Your task to perform on an android device: change the upload size in google photos Image 0: 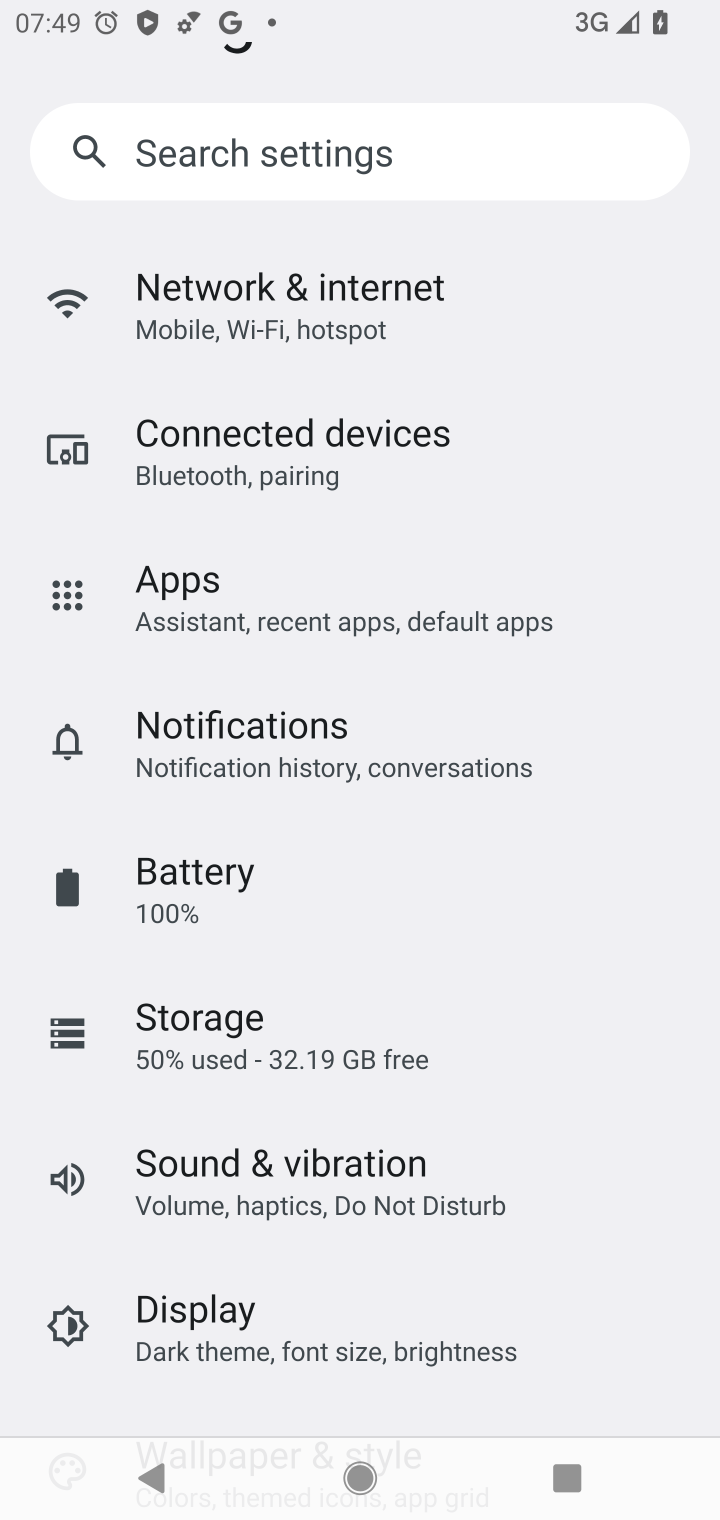
Step 0: press home button
Your task to perform on an android device: change the upload size in google photos Image 1: 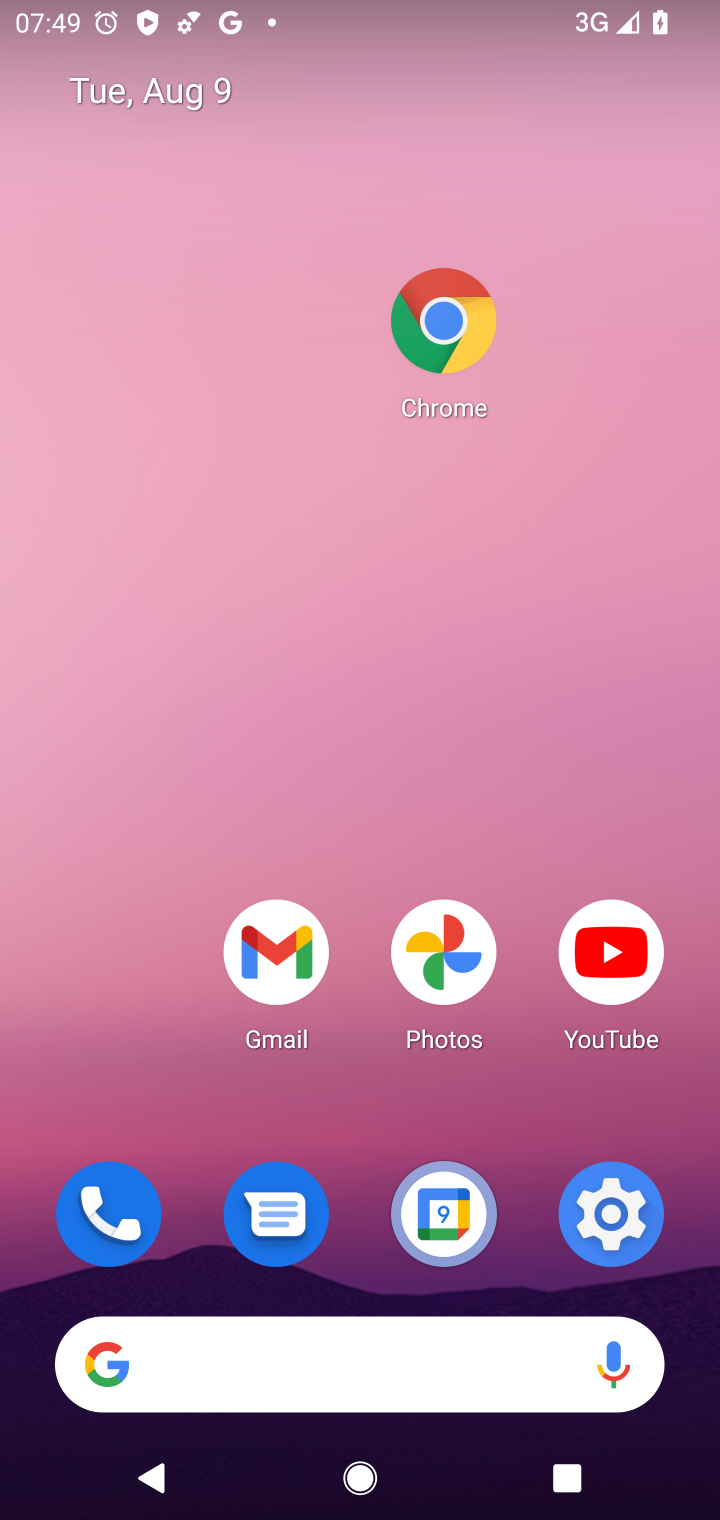
Step 1: drag from (491, 1253) to (592, 488)
Your task to perform on an android device: change the upload size in google photos Image 2: 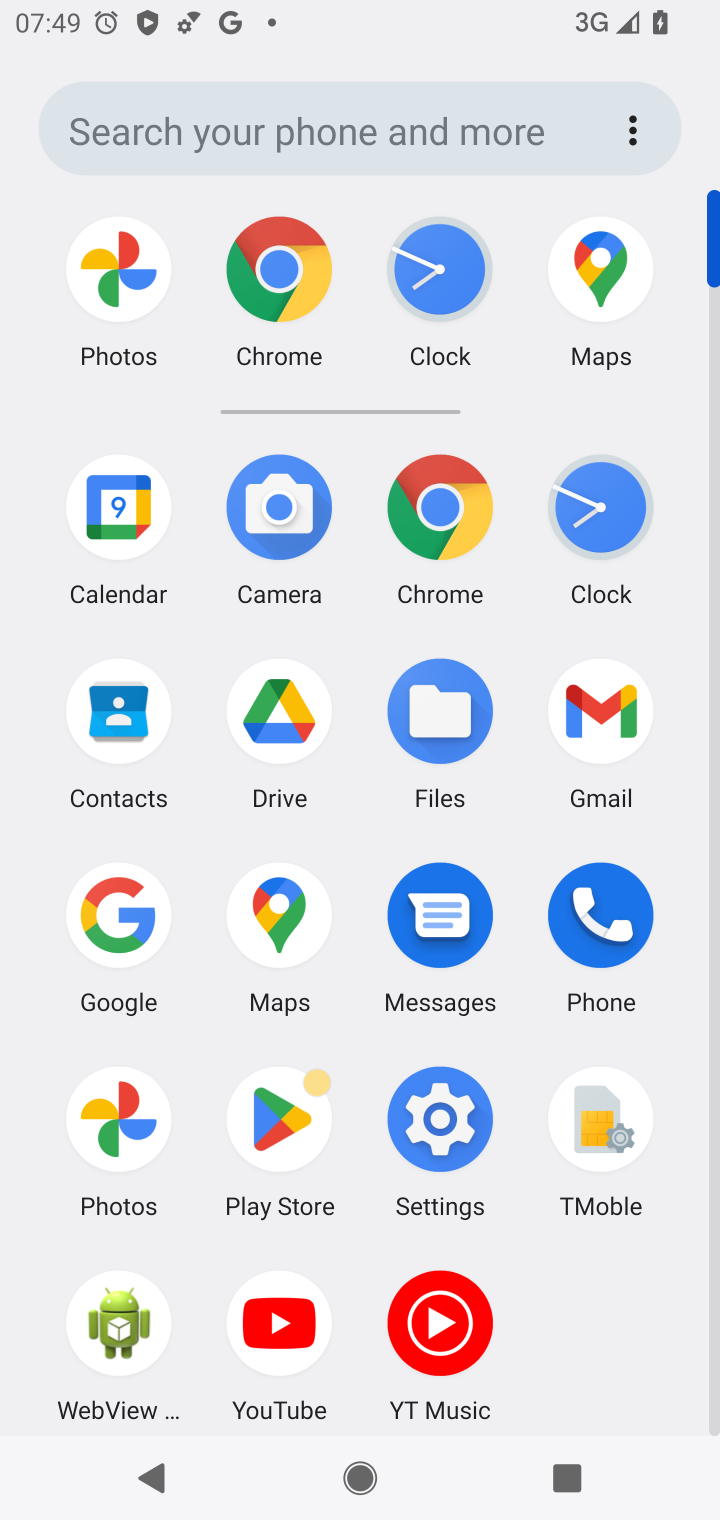
Step 2: click (128, 291)
Your task to perform on an android device: change the upload size in google photos Image 3: 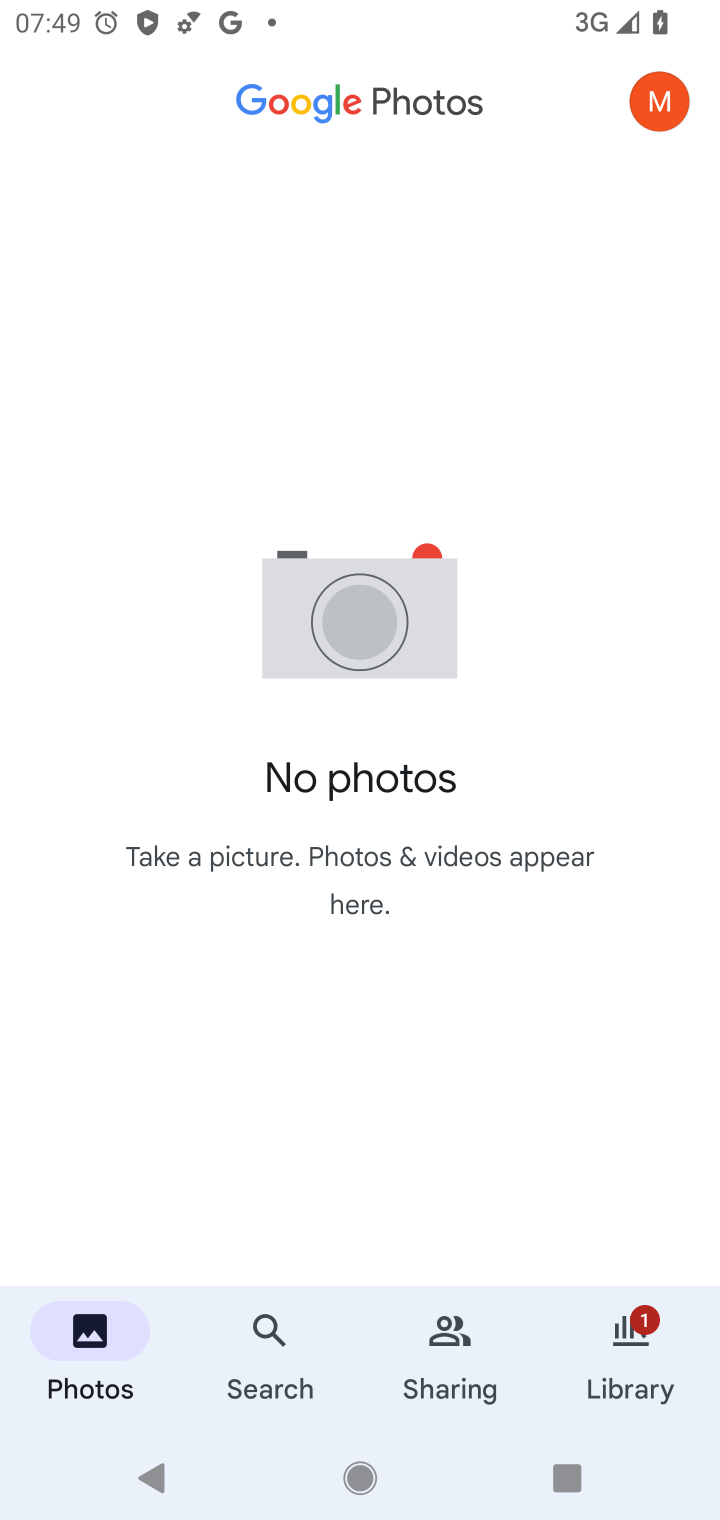
Step 3: click (655, 112)
Your task to perform on an android device: change the upload size in google photos Image 4: 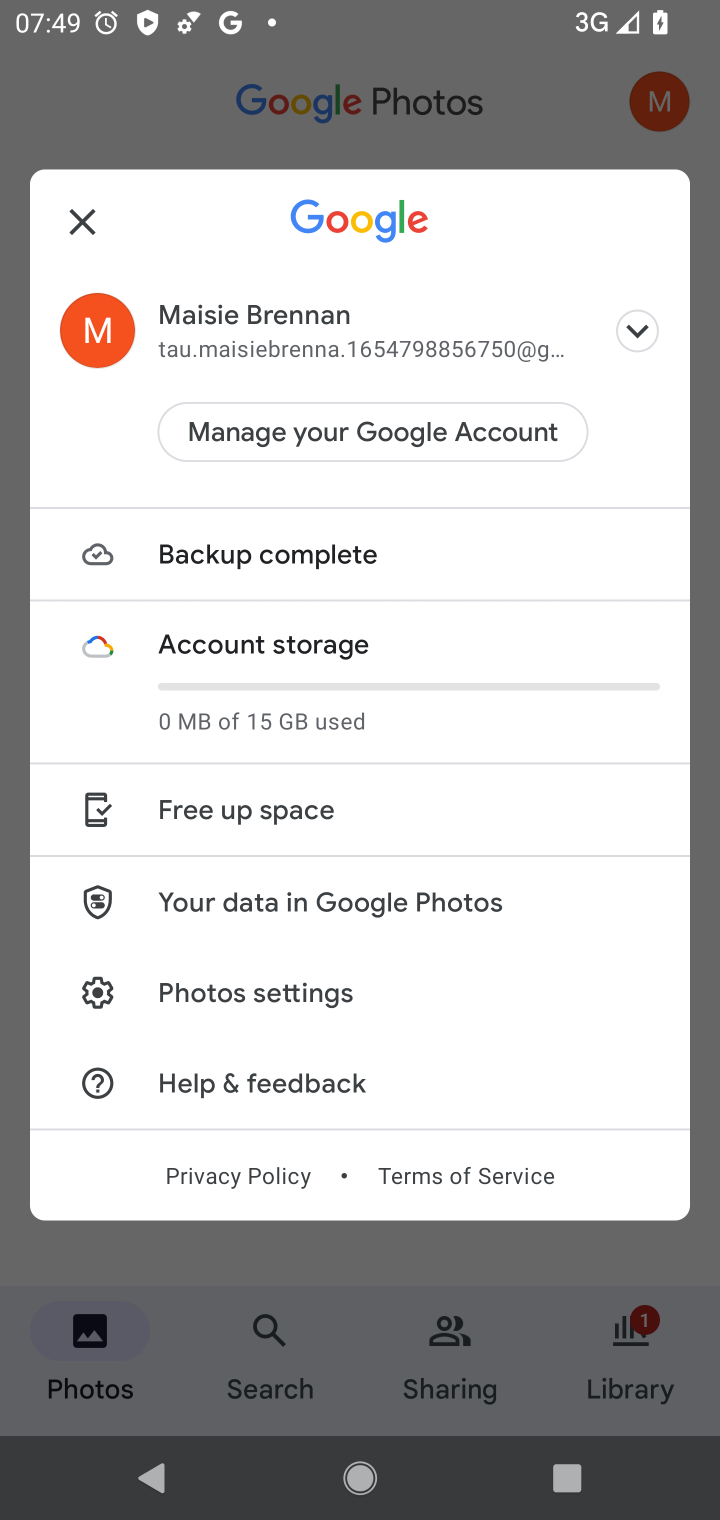
Step 4: click (240, 998)
Your task to perform on an android device: change the upload size in google photos Image 5: 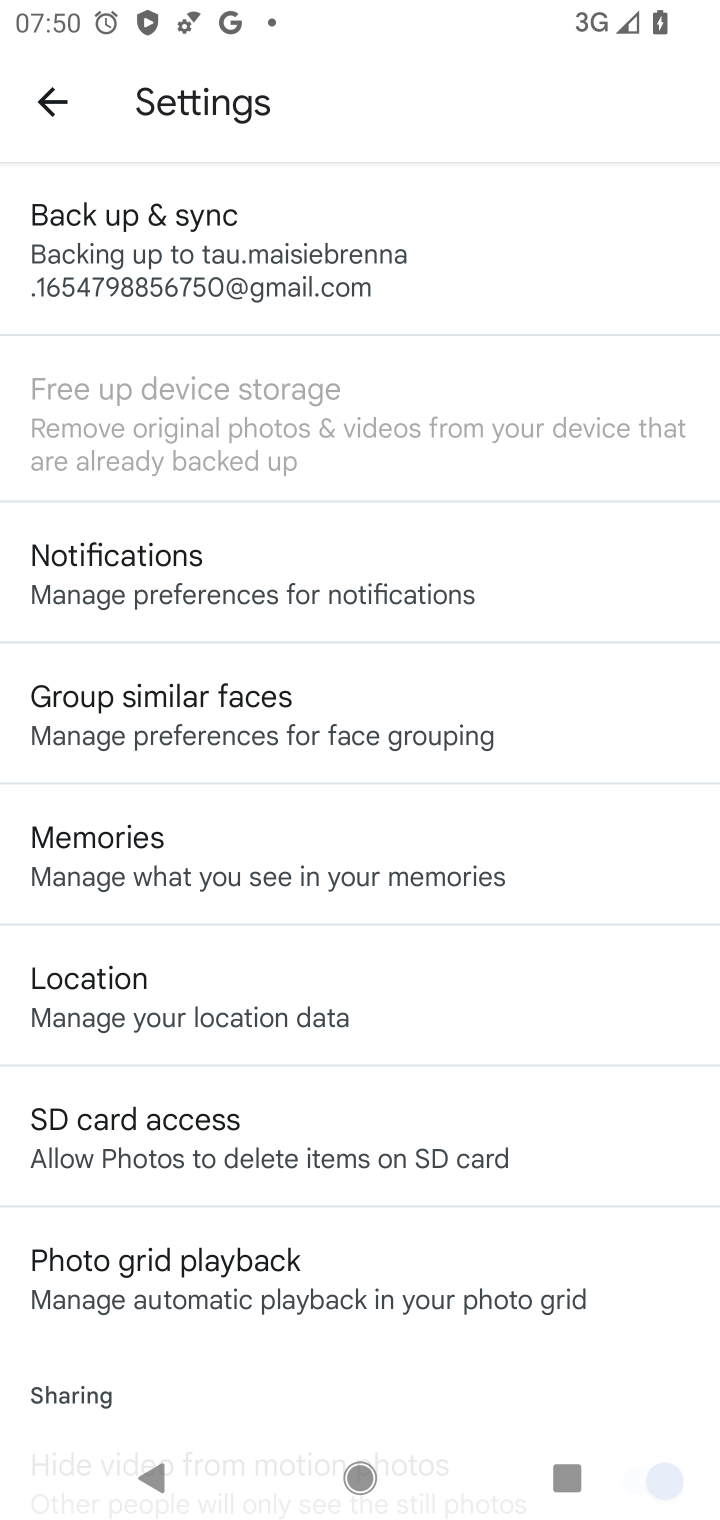
Step 5: click (176, 282)
Your task to perform on an android device: change the upload size in google photos Image 6: 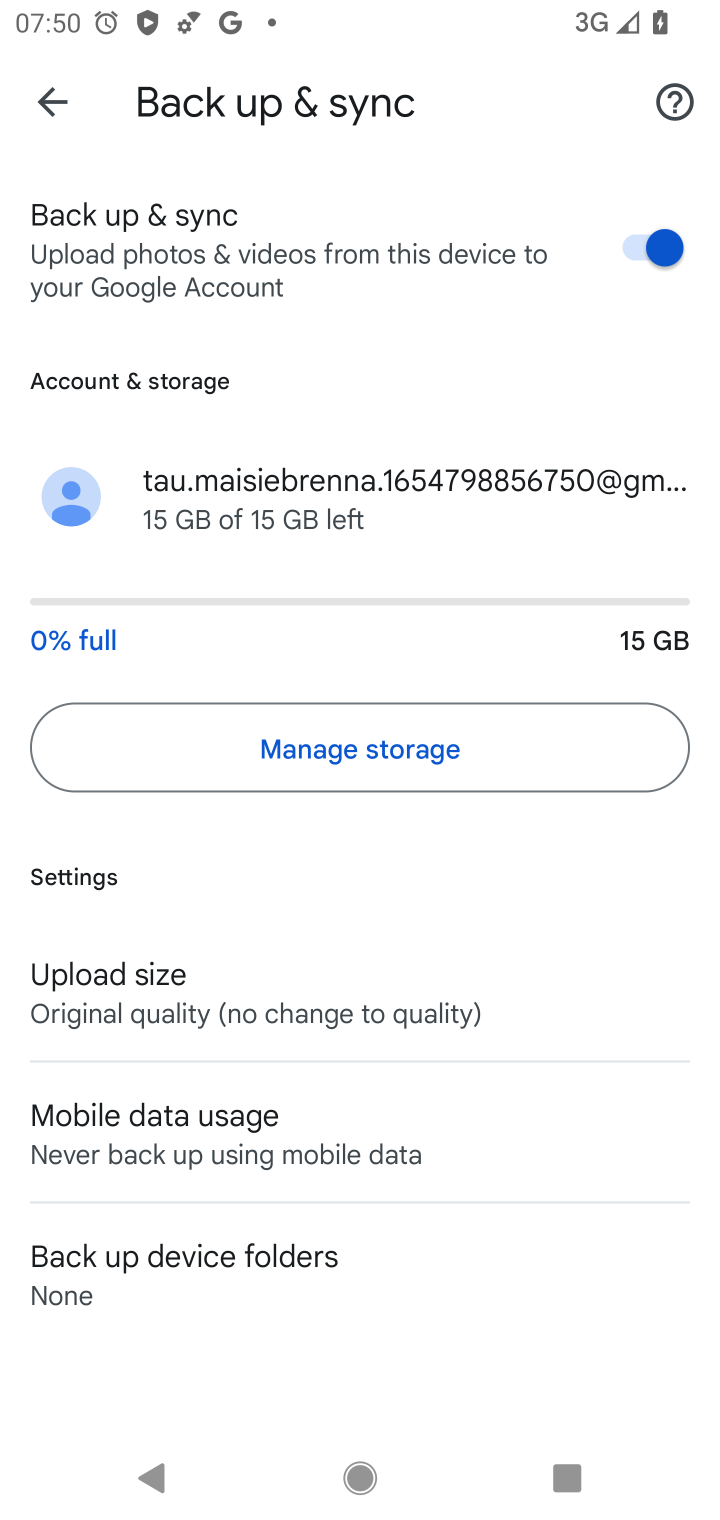
Step 6: click (182, 1006)
Your task to perform on an android device: change the upload size in google photos Image 7: 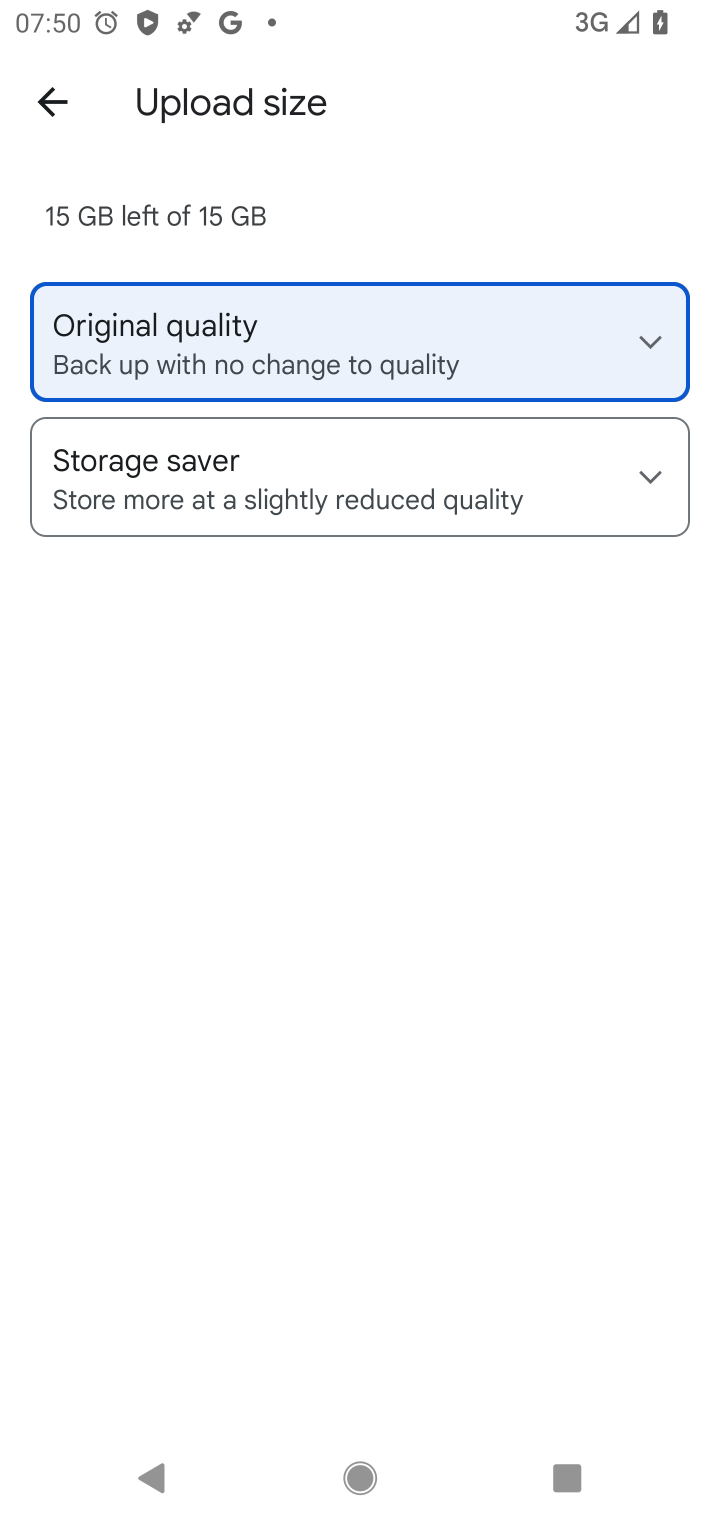
Step 7: click (190, 463)
Your task to perform on an android device: change the upload size in google photos Image 8: 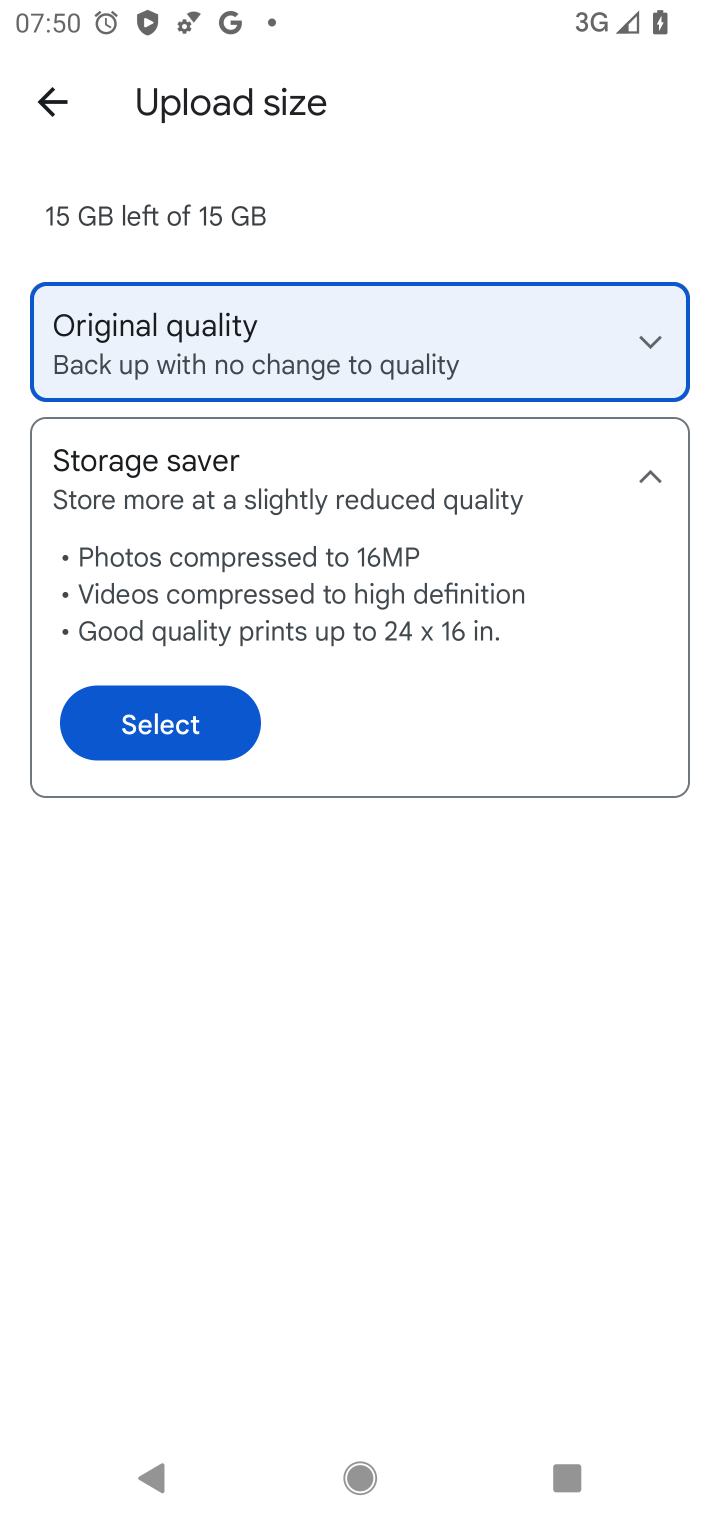
Step 8: click (186, 721)
Your task to perform on an android device: change the upload size in google photos Image 9: 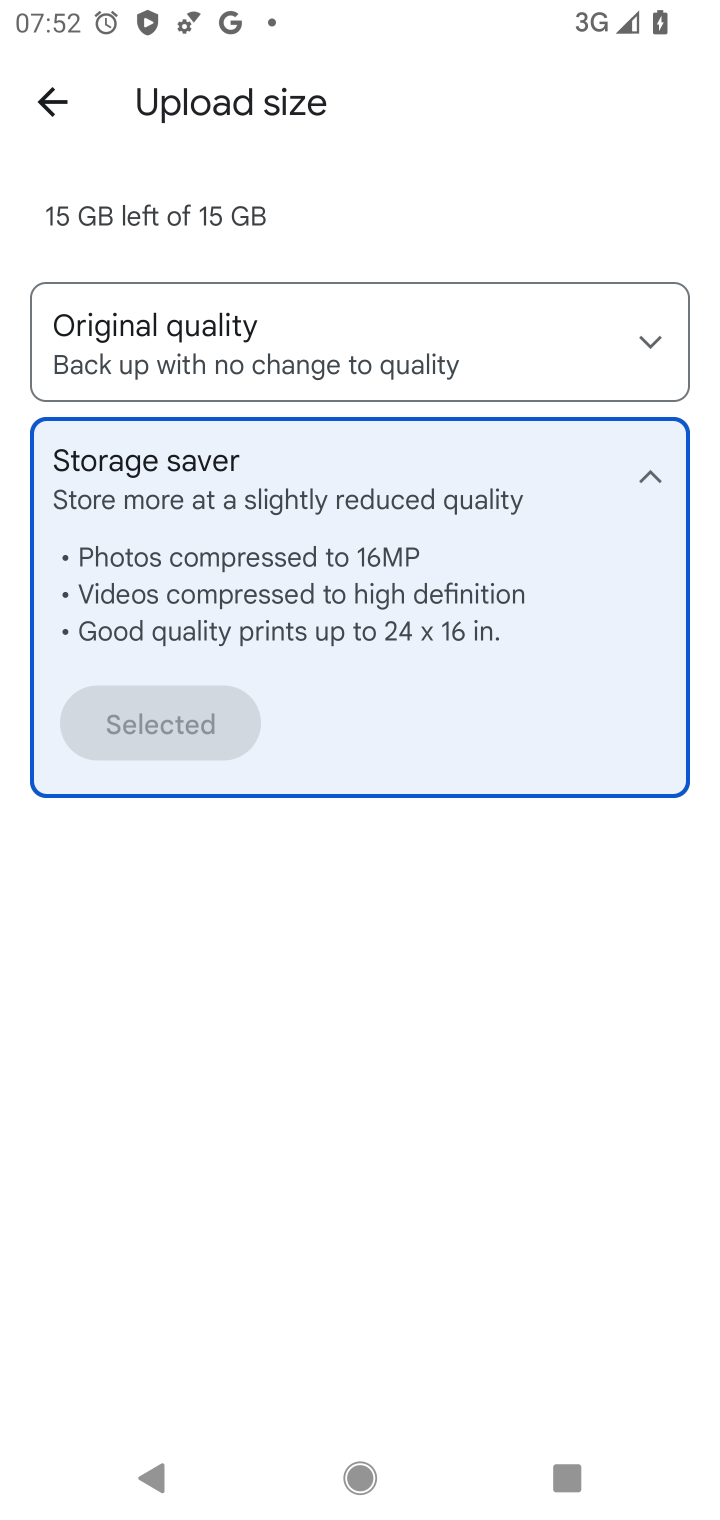
Step 9: task complete